Your task to perform on an android device: check the backup settings in the google photos Image 0: 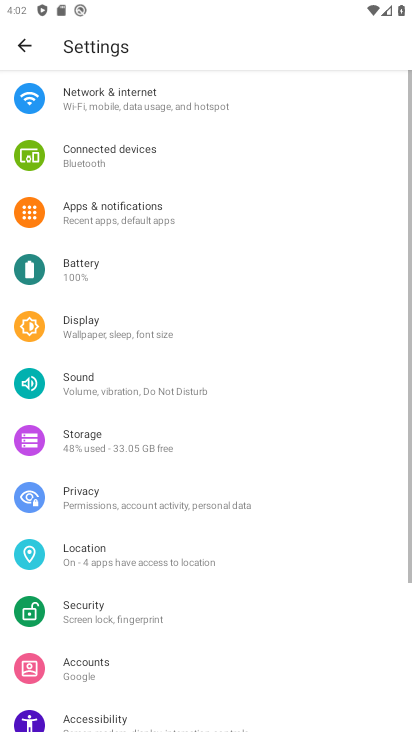
Step 0: press home button
Your task to perform on an android device: check the backup settings in the google photos Image 1: 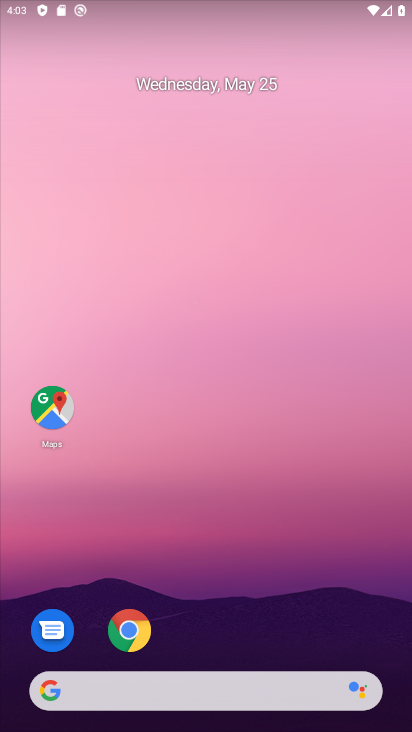
Step 1: drag from (143, 593) to (203, 153)
Your task to perform on an android device: check the backup settings in the google photos Image 2: 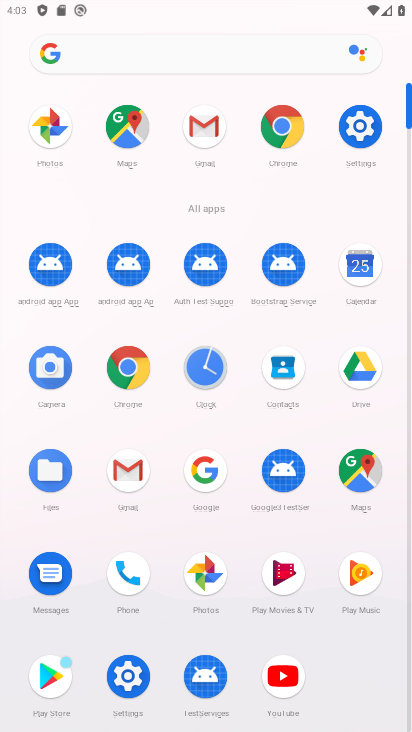
Step 2: click (209, 580)
Your task to perform on an android device: check the backup settings in the google photos Image 3: 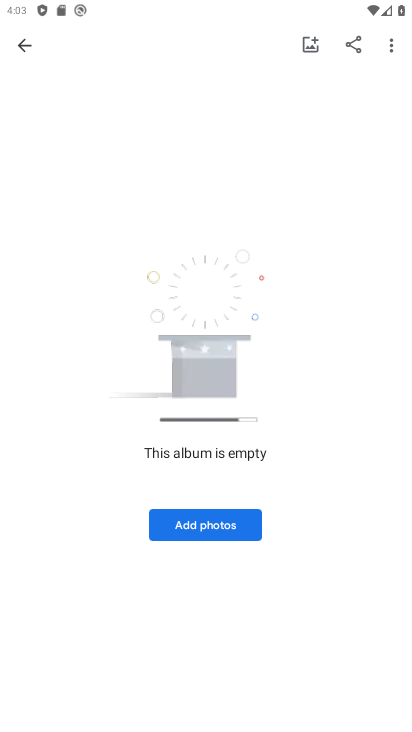
Step 3: click (10, 37)
Your task to perform on an android device: check the backup settings in the google photos Image 4: 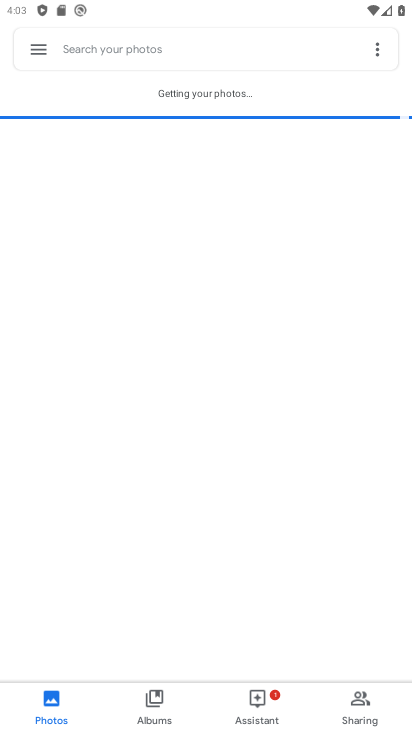
Step 4: click (41, 56)
Your task to perform on an android device: check the backup settings in the google photos Image 5: 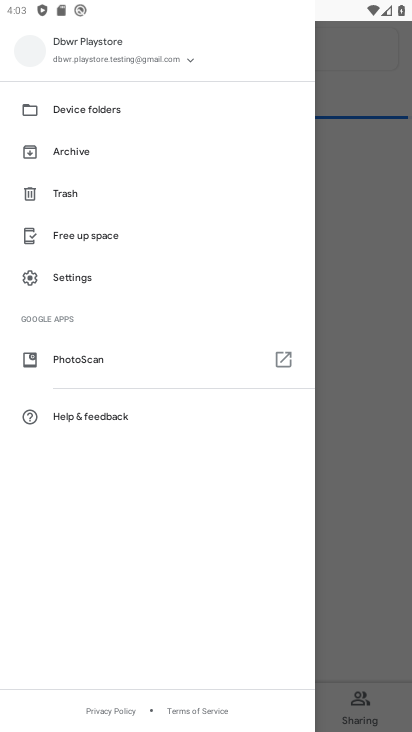
Step 5: click (66, 277)
Your task to perform on an android device: check the backup settings in the google photos Image 6: 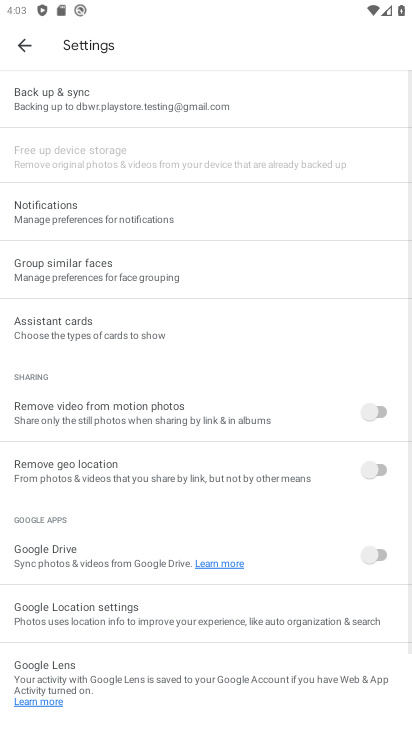
Step 6: click (79, 100)
Your task to perform on an android device: check the backup settings in the google photos Image 7: 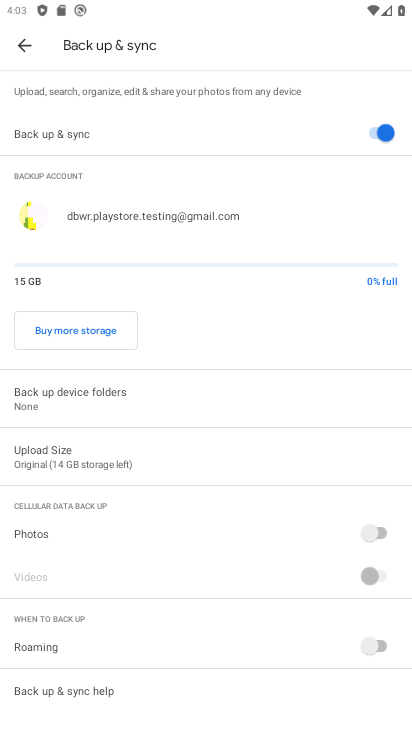
Step 7: task complete